Your task to perform on an android device: turn off location history Image 0: 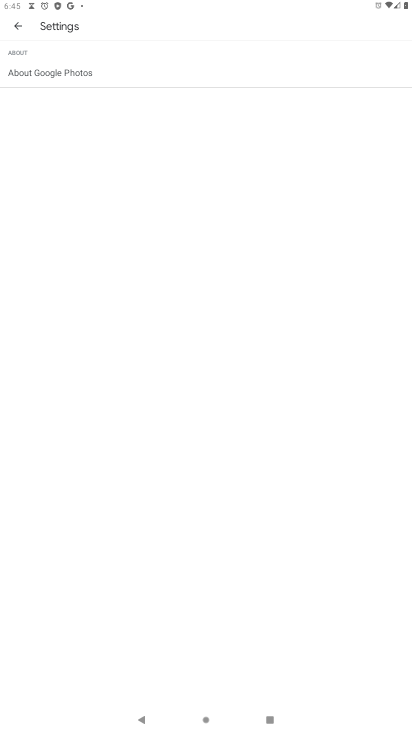
Step 0: press home button
Your task to perform on an android device: turn off location history Image 1: 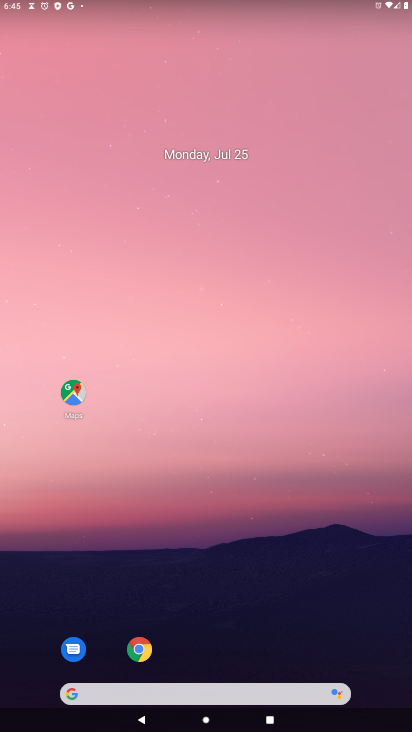
Step 1: drag from (317, 692) to (411, 272)
Your task to perform on an android device: turn off location history Image 2: 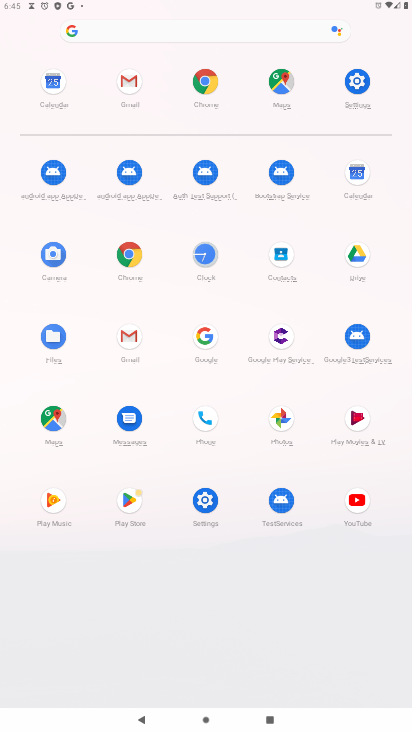
Step 2: click (362, 88)
Your task to perform on an android device: turn off location history Image 3: 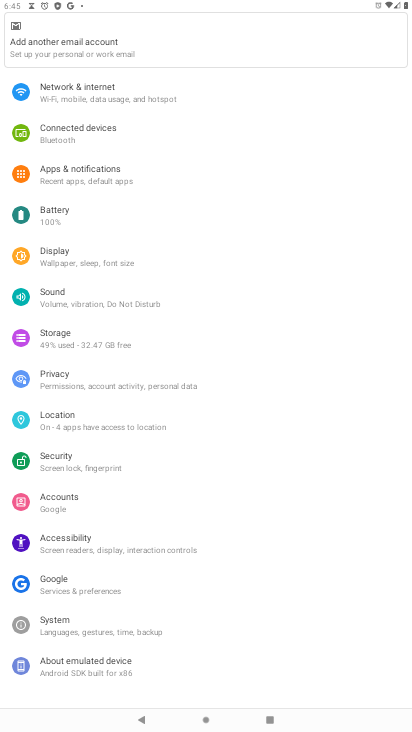
Step 3: click (73, 413)
Your task to perform on an android device: turn off location history Image 4: 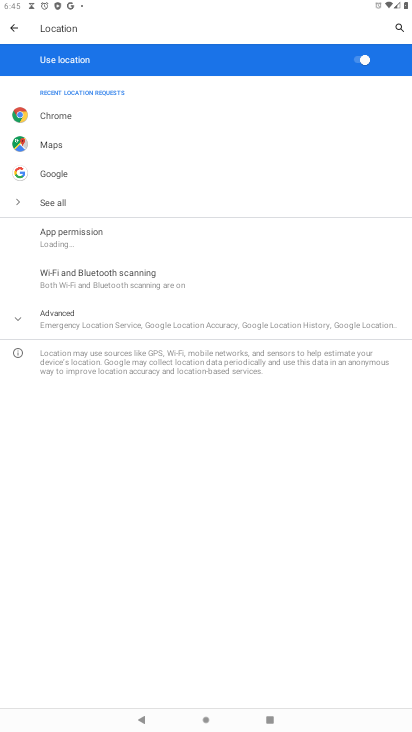
Step 4: click (356, 62)
Your task to perform on an android device: turn off location history Image 5: 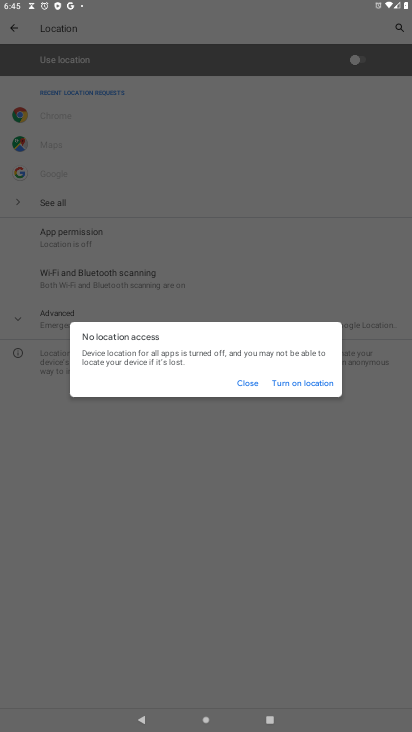
Step 5: task complete